Your task to perform on an android device: Open Amazon Image 0: 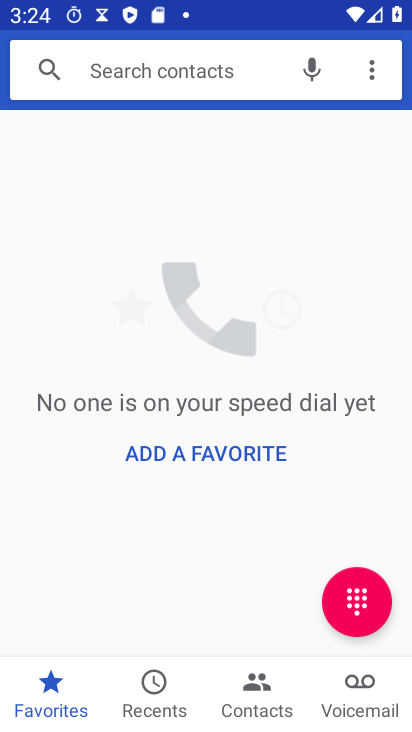
Step 0: press back button
Your task to perform on an android device: Open Amazon Image 1: 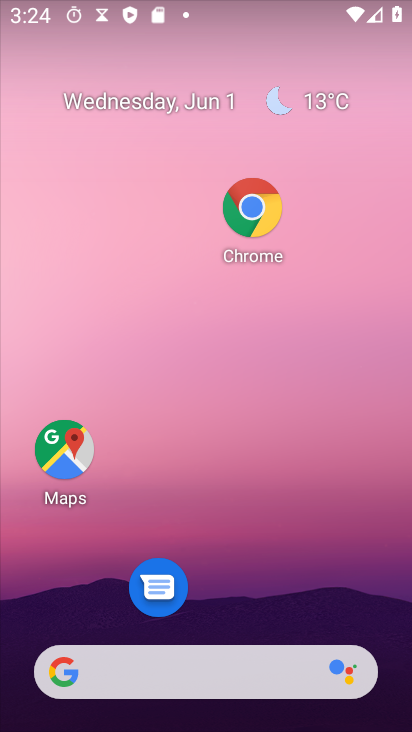
Step 1: drag from (275, 702) to (128, 86)
Your task to perform on an android device: Open Amazon Image 2: 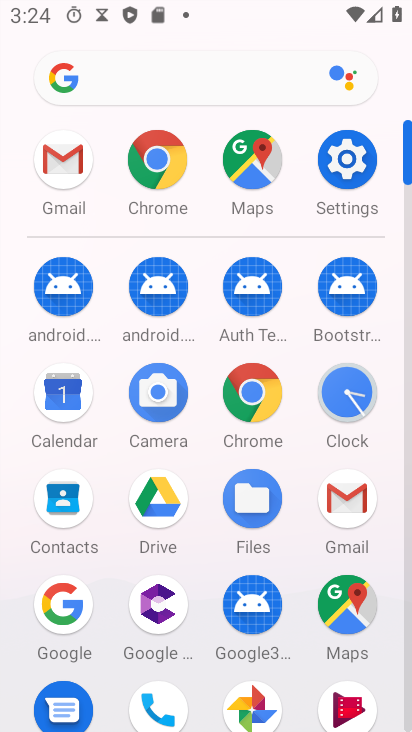
Step 2: click (165, 168)
Your task to perform on an android device: Open Amazon Image 3: 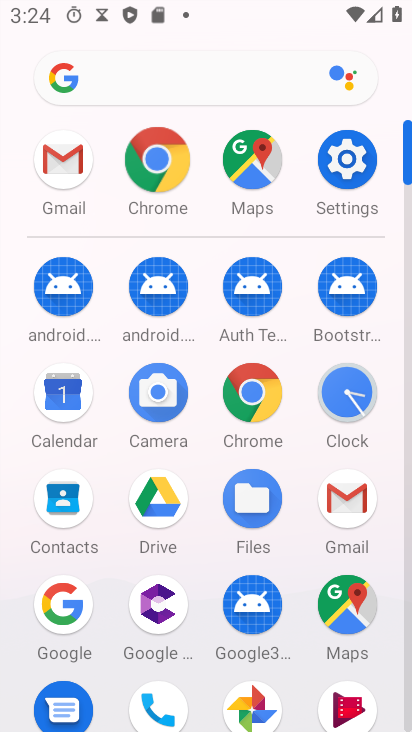
Step 3: click (168, 168)
Your task to perform on an android device: Open Amazon Image 4: 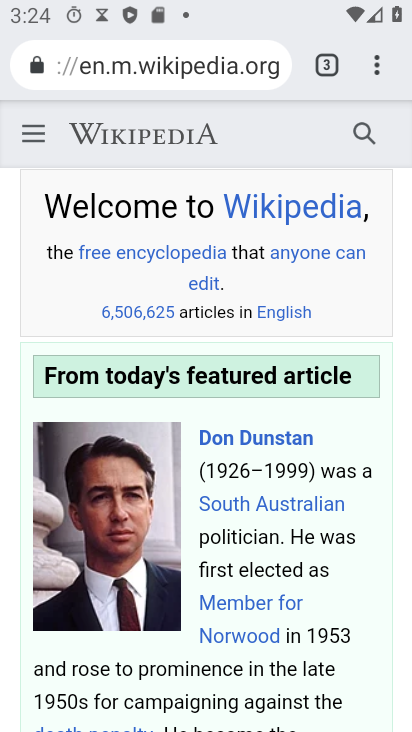
Step 4: drag from (376, 70) to (141, 127)
Your task to perform on an android device: Open Amazon Image 5: 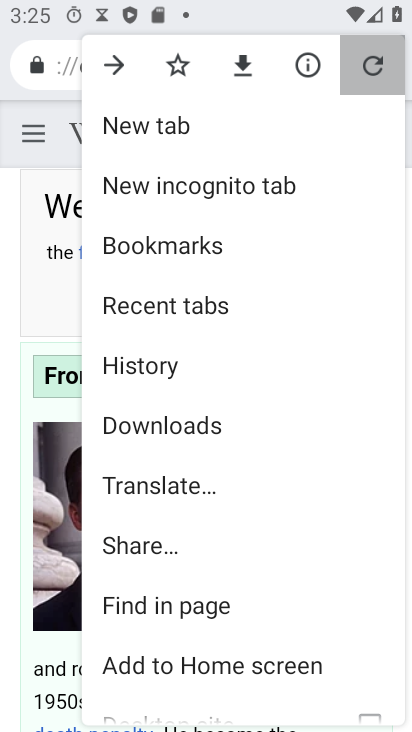
Step 5: click (144, 125)
Your task to perform on an android device: Open Amazon Image 6: 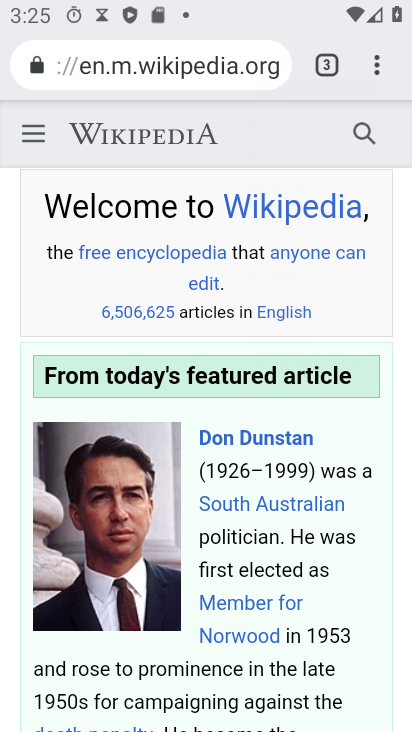
Step 6: click (143, 123)
Your task to perform on an android device: Open Amazon Image 7: 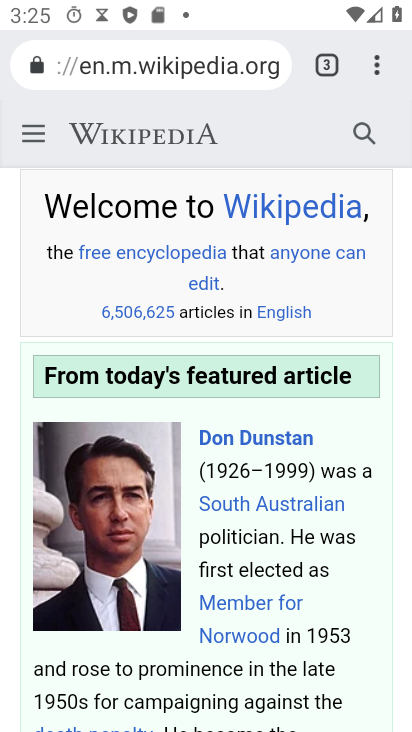
Step 7: click (143, 121)
Your task to perform on an android device: Open Amazon Image 8: 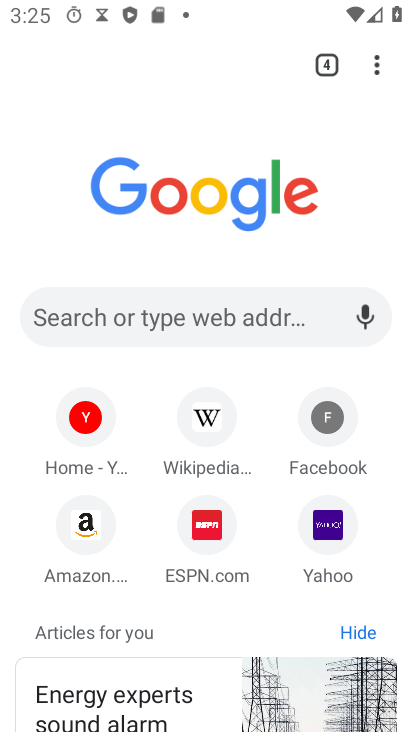
Step 8: click (87, 528)
Your task to perform on an android device: Open Amazon Image 9: 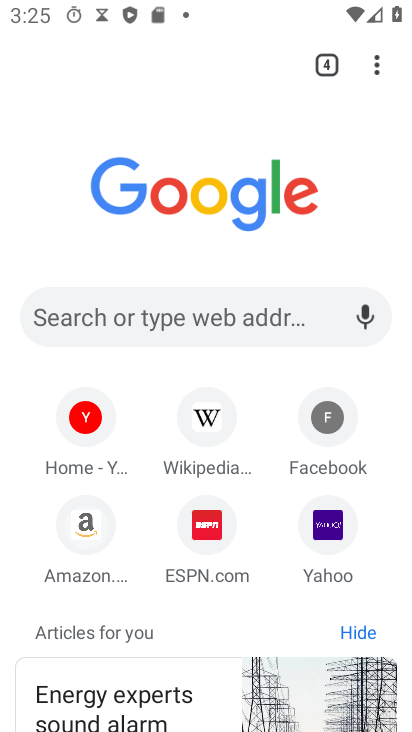
Step 9: click (87, 528)
Your task to perform on an android device: Open Amazon Image 10: 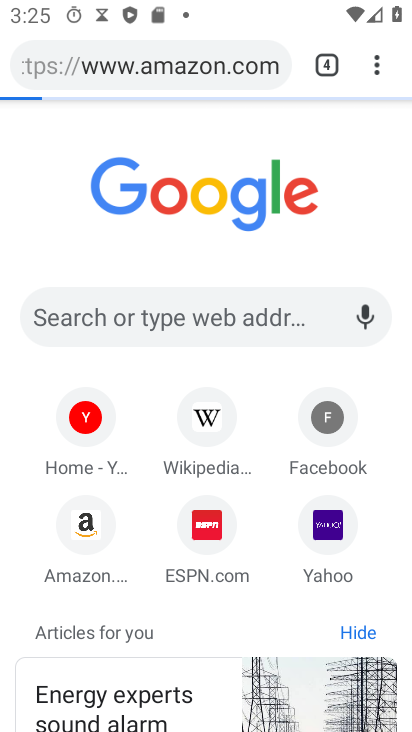
Step 10: click (87, 528)
Your task to perform on an android device: Open Amazon Image 11: 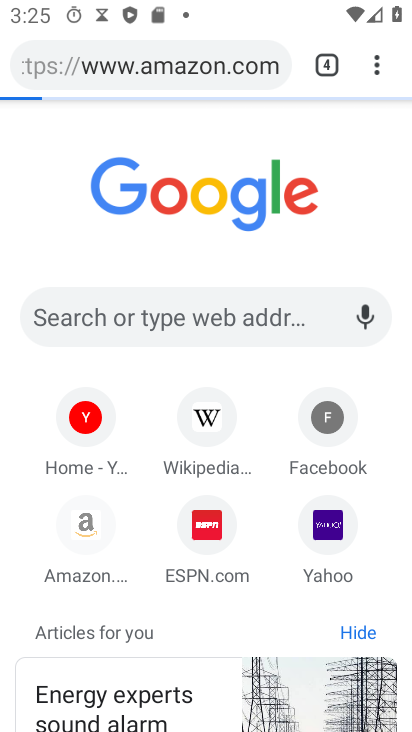
Step 11: click (87, 528)
Your task to perform on an android device: Open Amazon Image 12: 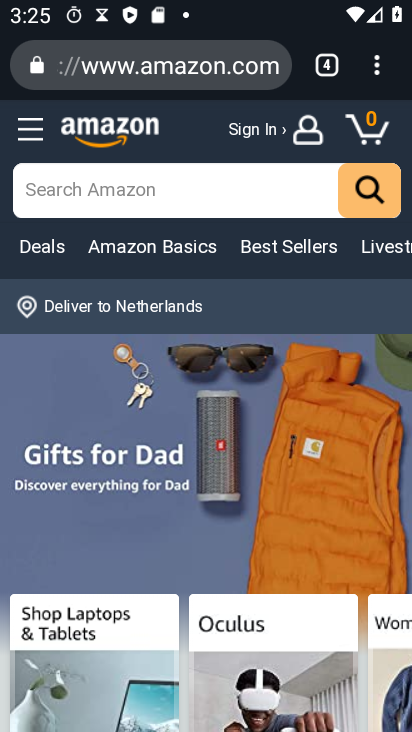
Step 12: task complete